Your task to perform on an android device: What is the news today? Image 0: 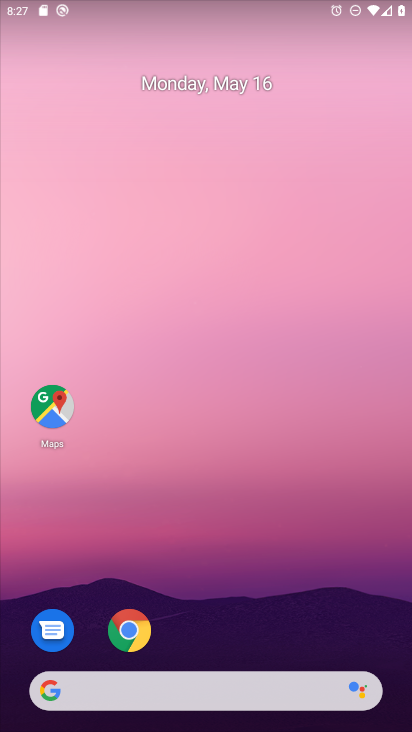
Step 0: drag from (229, 534) to (202, 199)
Your task to perform on an android device: What is the news today? Image 1: 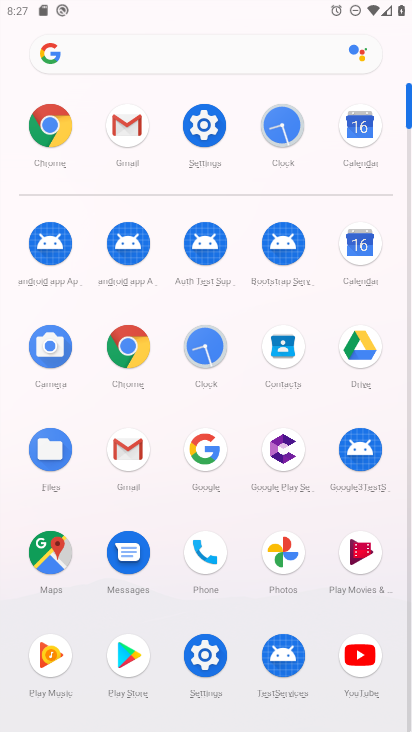
Step 1: click (85, 49)
Your task to perform on an android device: What is the news today? Image 2: 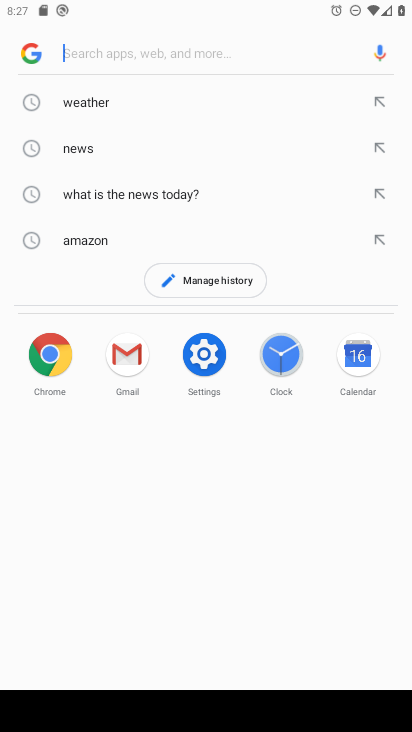
Step 2: click (116, 194)
Your task to perform on an android device: What is the news today? Image 3: 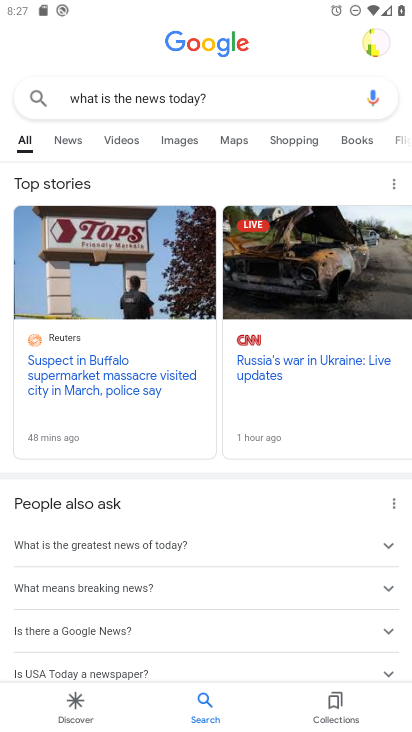
Step 3: task complete